Your task to perform on an android device: find which apps use the phone's location Image 0: 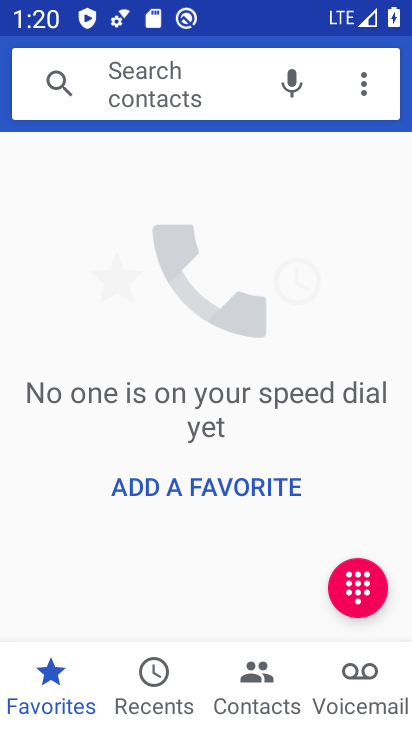
Step 0: press home button
Your task to perform on an android device: find which apps use the phone's location Image 1: 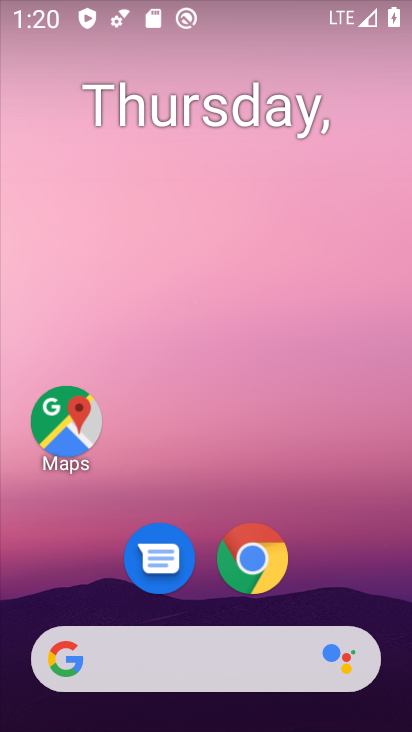
Step 1: drag from (343, 550) to (384, 90)
Your task to perform on an android device: find which apps use the phone's location Image 2: 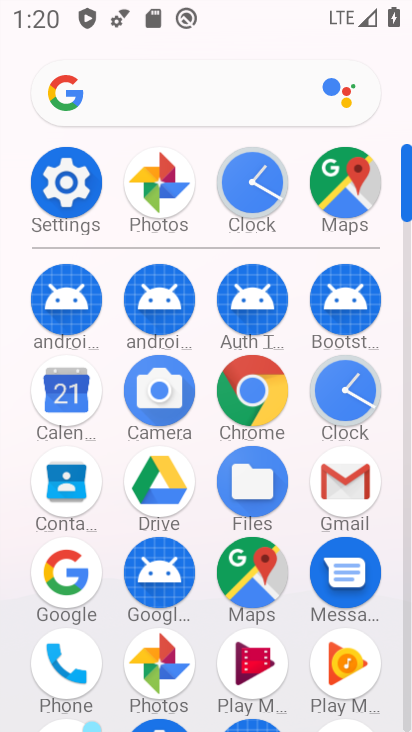
Step 2: click (409, 661)
Your task to perform on an android device: find which apps use the phone's location Image 3: 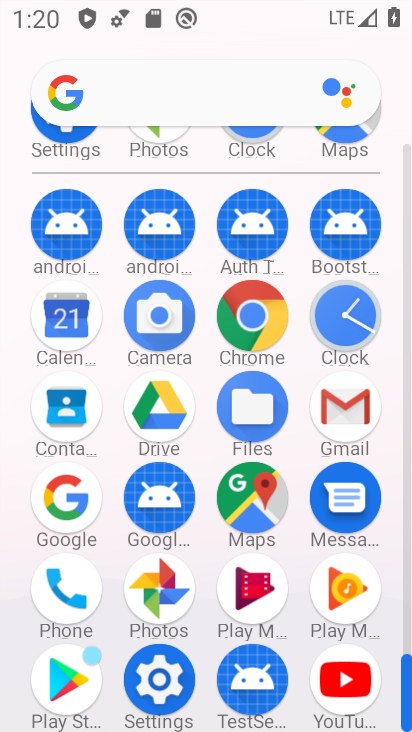
Step 3: click (85, 579)
Your task to perform on an android device: find which apps use the phone's location Image 4: 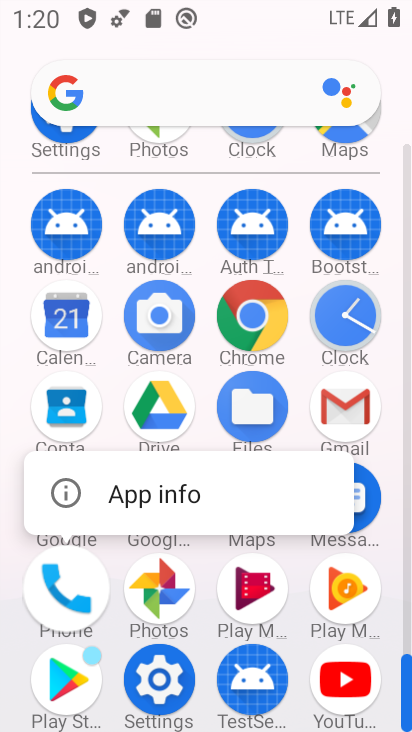
Step 4: click (87, 499)
Your task to perform on an android device: find which apps use the phone's location Image 5: 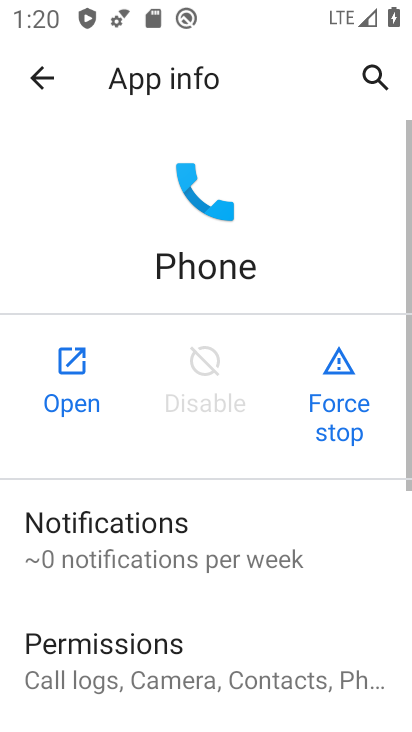
Step 5: click (163, 656)
Your task to perform on an android device: find which apps use the phone's location Image 6: 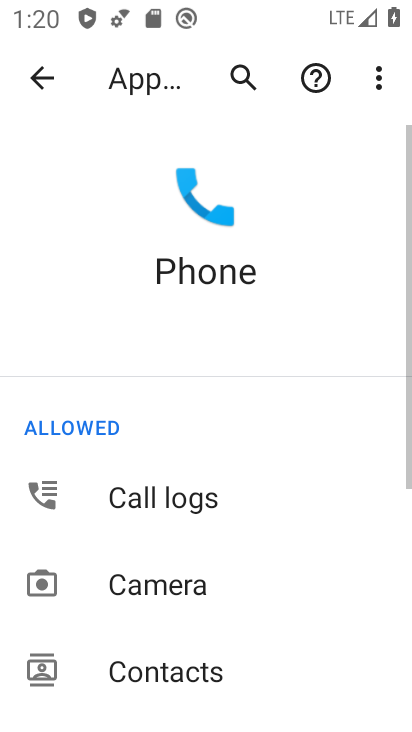
Step 6: drag from (290, 643) to (297, 61)
Your task to perform on an android device: find which apps use the phone's location Image 7: 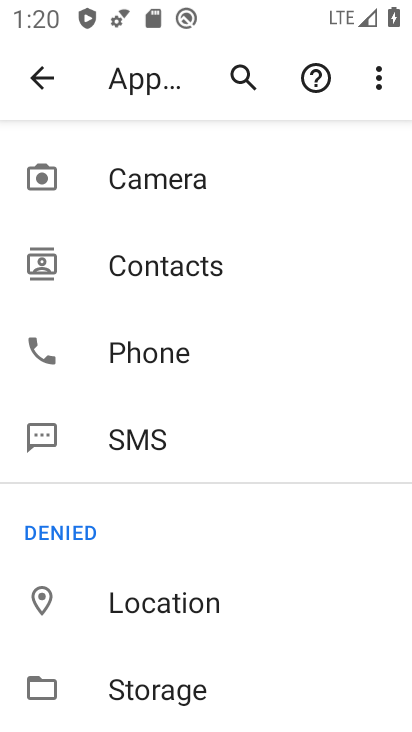
Step 7: click (236, 579)
Your task to perform on an android device: find which apps use the phone's location Image 8: 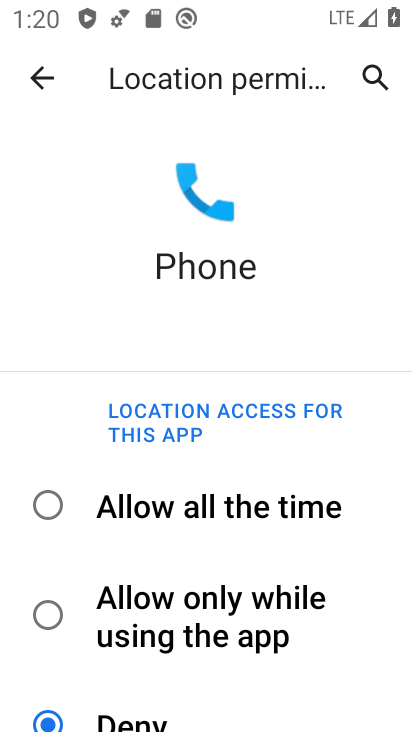
Step 8: task complete